Your task to perform on an android device: change notifications settings Image 0: 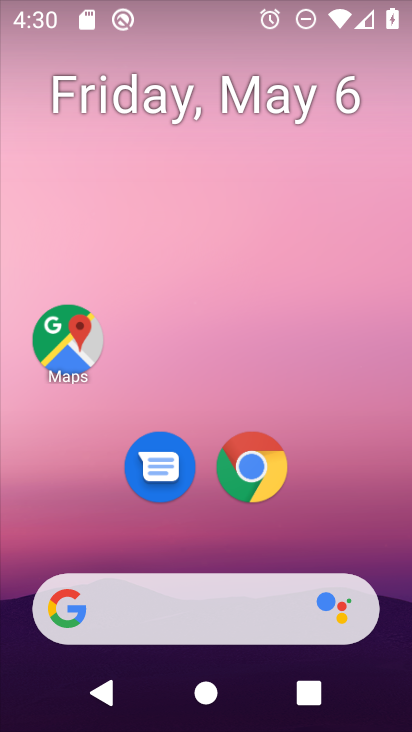
Step 0: click (256, 494)
Your task to perform on an android device: change notifications settings Image 1: 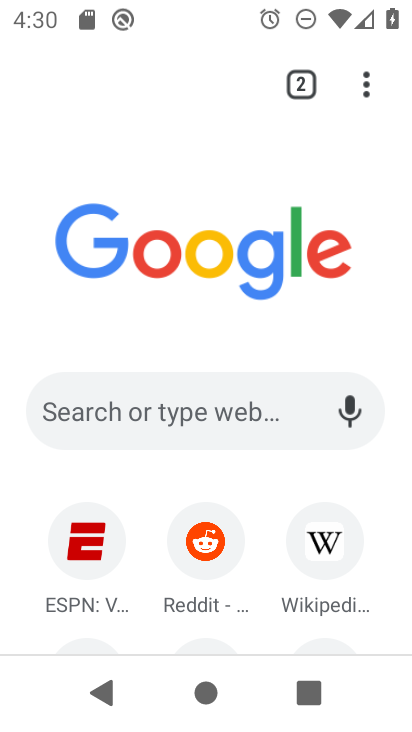
Step 1: press home button
Your task to perform on an android device: change notifications settings Image 2: 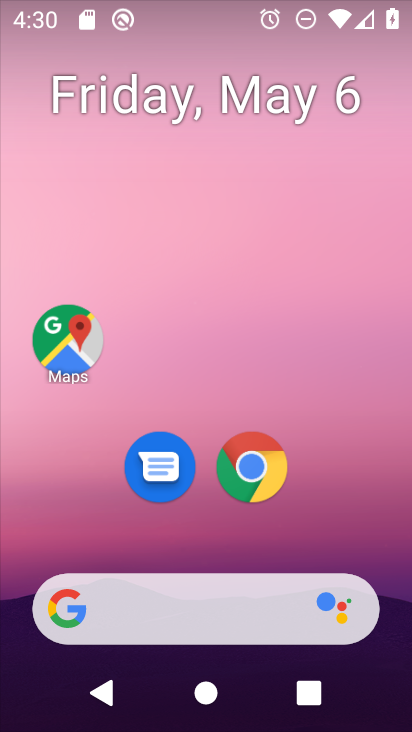
Step 2: drag from (334, 275) to (384, 183)
Your task to perform on an android device: change notifications settings Image 3: 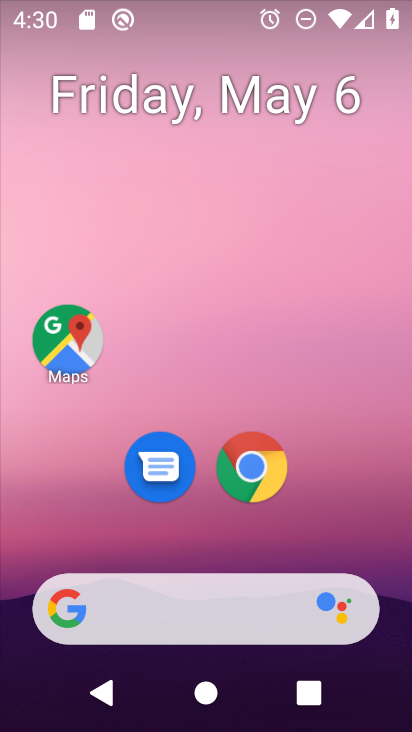
Step 3: drag from (305, 460) to (212, 145)
Your task to perform on an android device: change notifications settings Image 4: 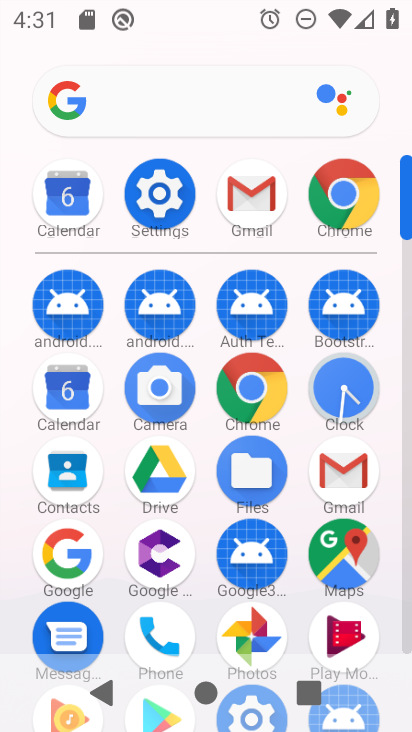
Step 4: click (166, 215)
Your task to perform on an android device: change notifications settings Image 5: 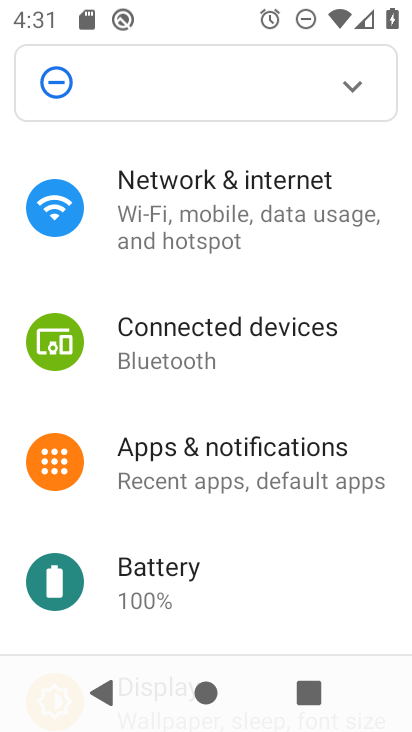
Step 5: click (196, 446)
Your task to perform on an android device: change notifications settings Image 6: 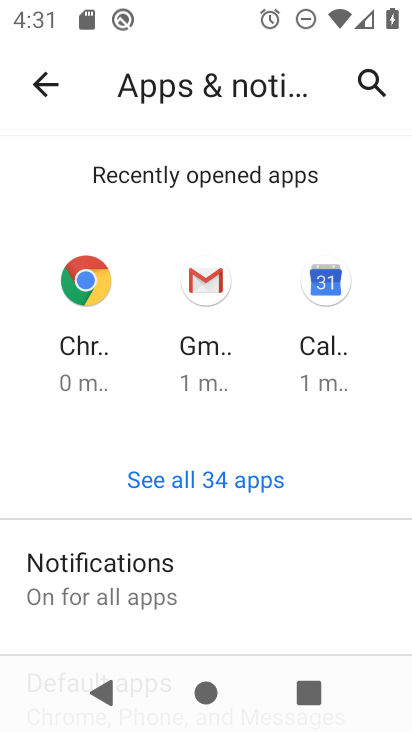
Step 6: click (220, 87)
Your task to perform on an android device: change notifications settings Image 7: 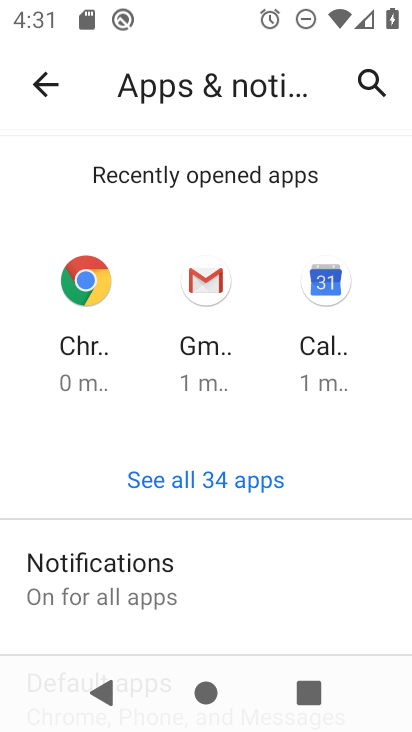
Step 7: click (197, 476)
Your task to perform on an android device: change notifications settings Image 8: 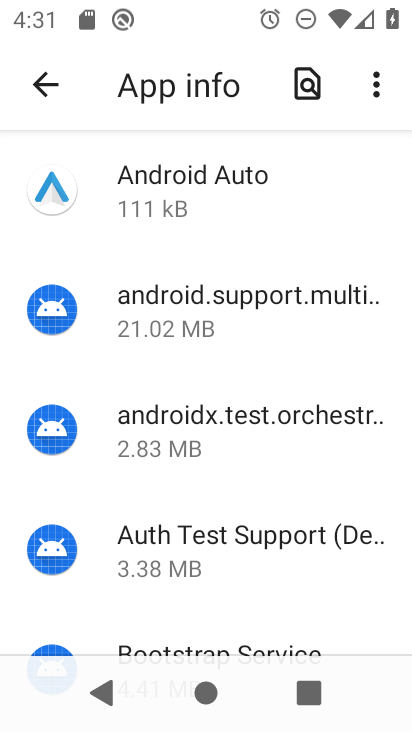
Step 8: click (41, 85)
Your task to perform on an android device: change notifications settings Image 9: 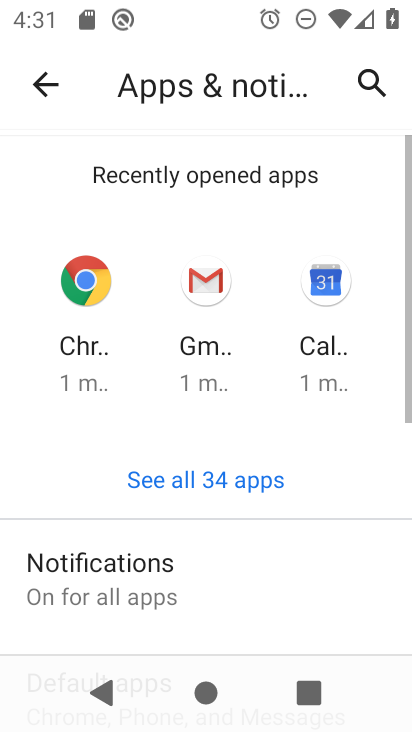
Step 9: drag from (144, 567) to (239, 79)
Your task to perform on an android device: change notifications settings Image 10: 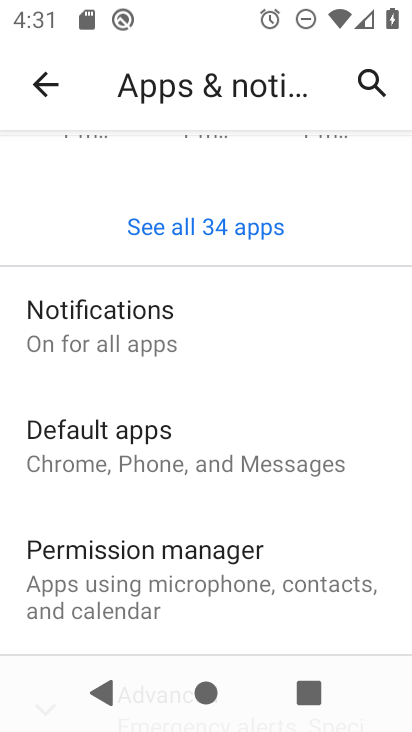
Step 10: drag from (217, 528) to (318, 57)
Your task to perform on an android device: change notifications settings Image 11: 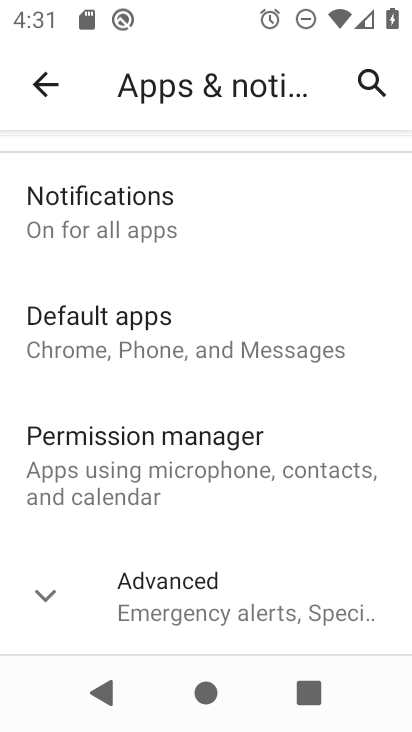
Step 11: click (124, 195)
Your task to perform on an android device: change notifications settings Image 12: 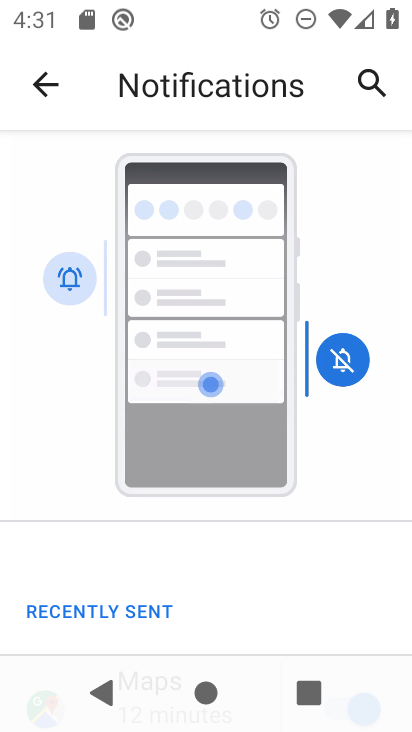
Step 12: drag from (203, 604) to (260, 65)
Your task to perform on an android device: change notifications settings Image 13: 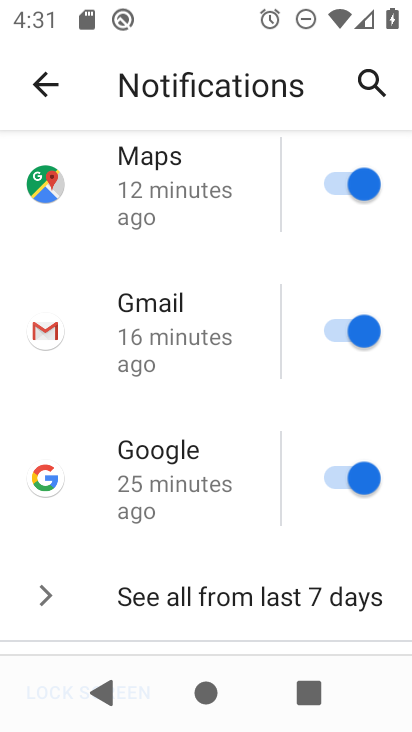
Step 13: drag from (182, 464) to (238, 65)
Your task to perform on an android device: change notifications settings Image 14: 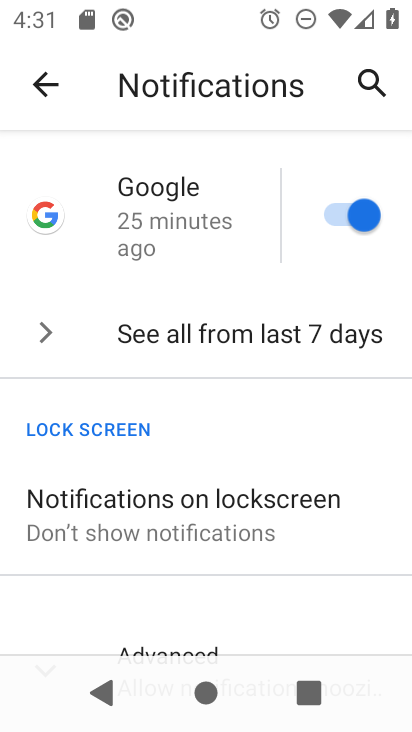
Step 14: drag from (191, 558) to (289, 125)
Your task to perform on an android device: change notifications settings Image 15: 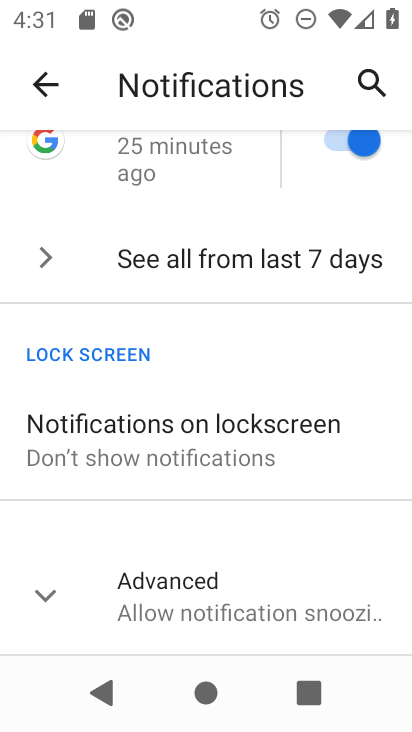
Step 15: click (119, 433)
Your task to perform on an android device: change notifications settings Image 16: 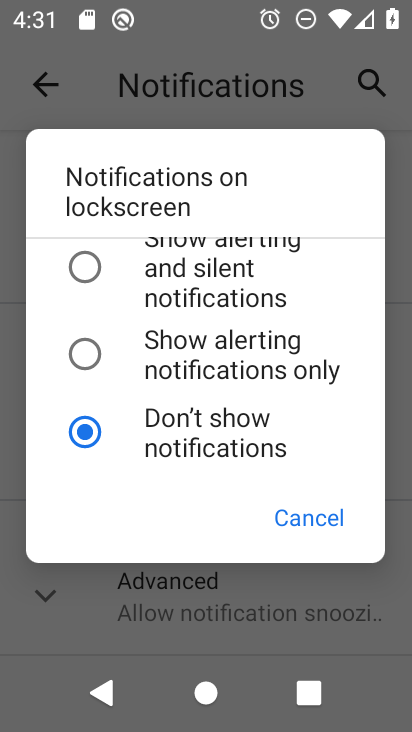
Step 16: click (103, 262)
Your task to perform on an android device: change notifications settings Image 17: 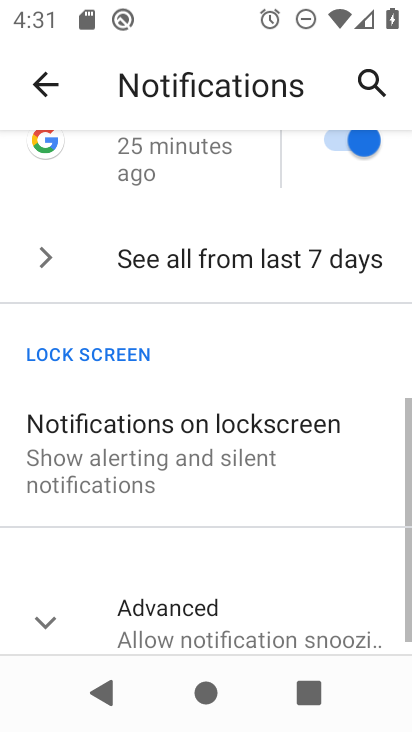
Step 17: task complete